Your task to perform on an android device: toggle translation in the chrome app Image 0: 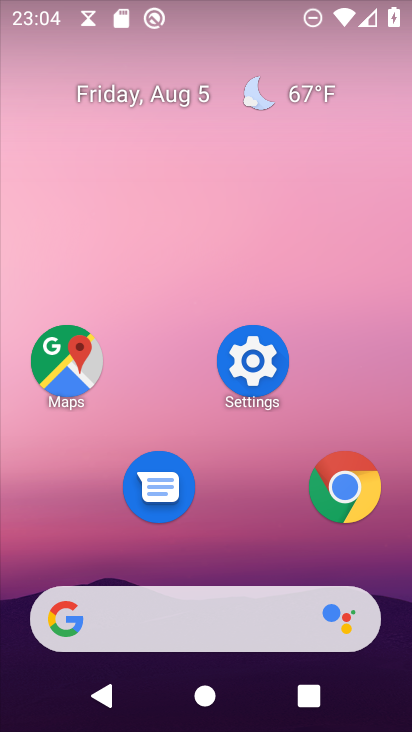
Step 0: press home button
Your task to perform on an android device: toggle translation in the chrome app Image 1: 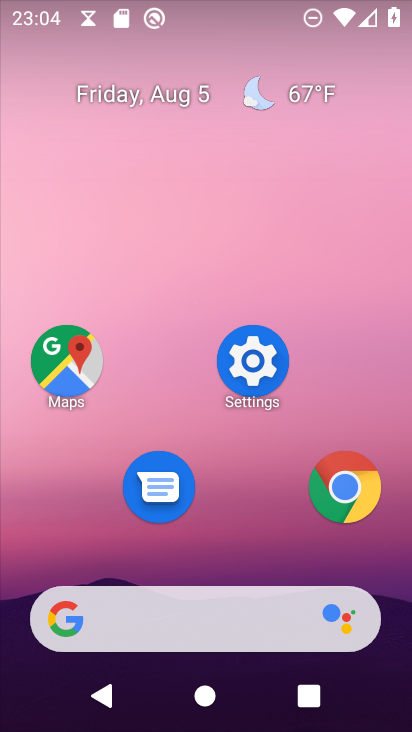
Step 1: click (339, 491)
Your task to perform on an android device: toggle translation in the chrome app Image 2: 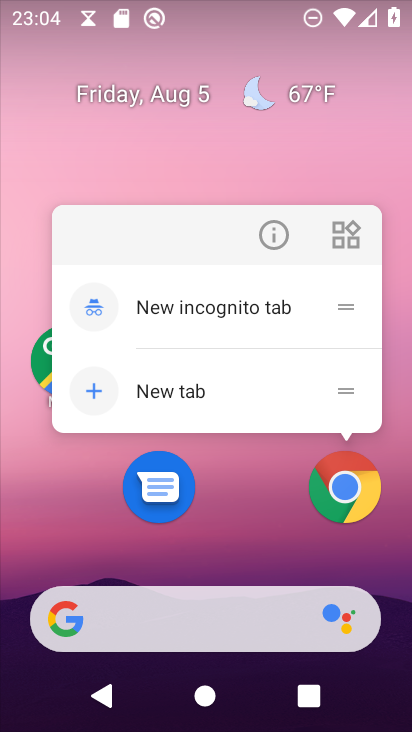
Step 2: click (340, 493)
Your task to perform on an android device: toggle translation in the chrome app Image 3: 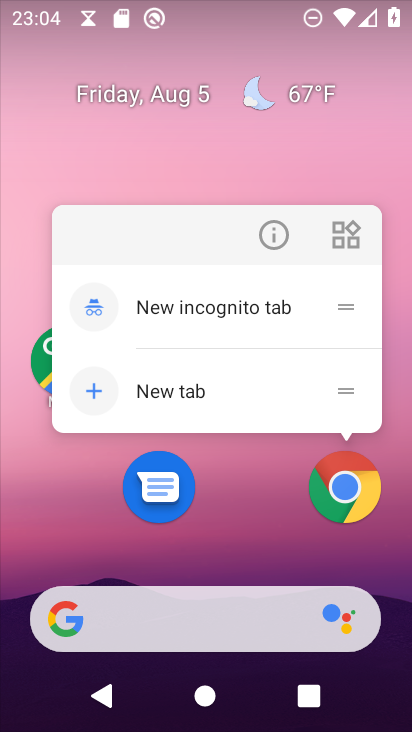
Step 3: click (340, 498)
Your task to perform on an android device: toggle translation in the chrome app Image 4: 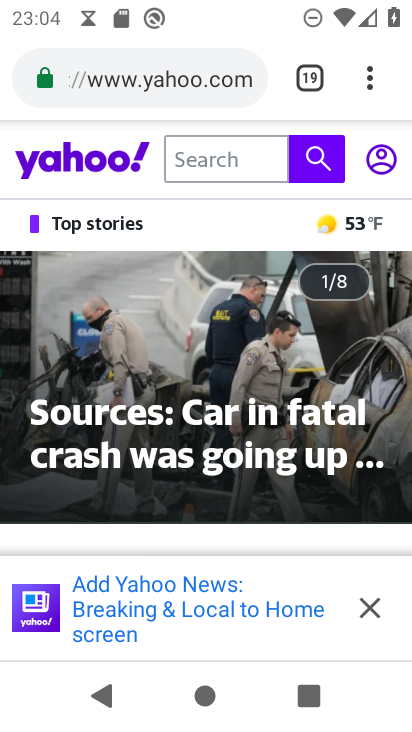
Step 4: drag from (369, 76) to (201, 545)
Your task to perform on an android device: toggle translation in the chrome app Image 5: 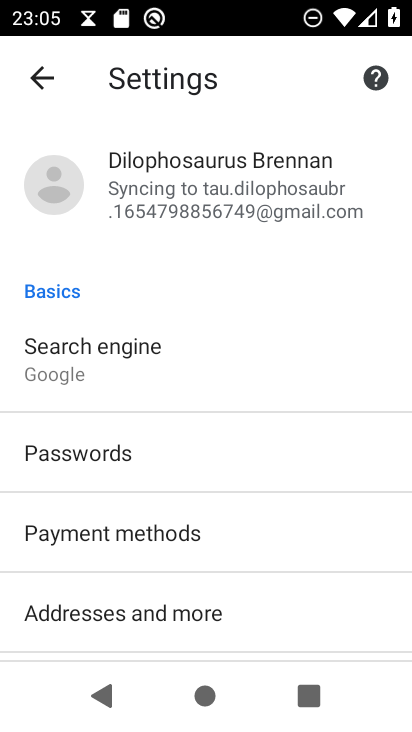
Step 5: drag from (229, 637) to (321, 171)
Your task to perform on an android device: toggle translation in the chrome app Image 6: 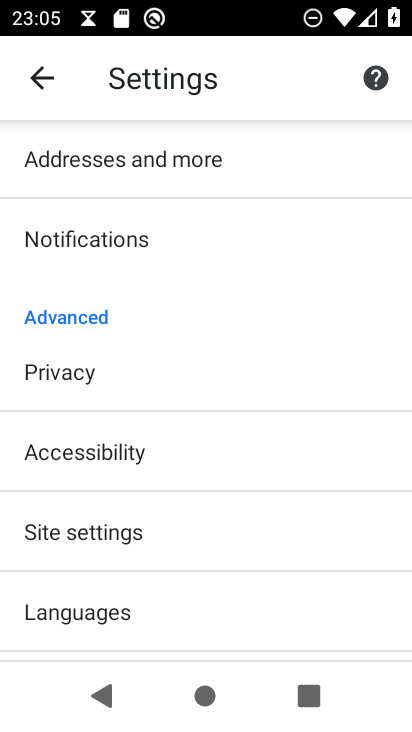
Step 6: click (107, 613)
Your task to perform on an android device: toggle translation in the chrome app Image 7: 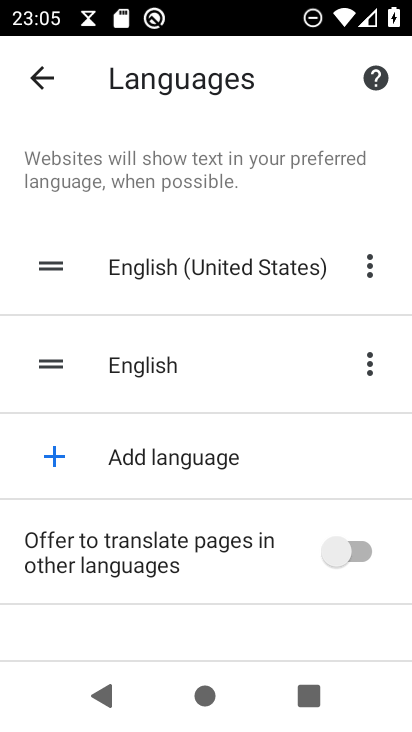
Step 7: click (360, 550)
Your task to perform on an android device: toggle translation in the chrome app Image 8: 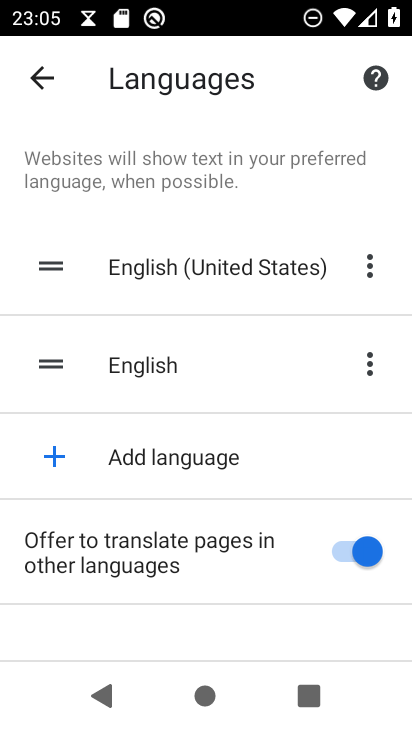
Step 8: task complete